Your task to perform on an android device: turn on javascript in the chrome app Image 0: 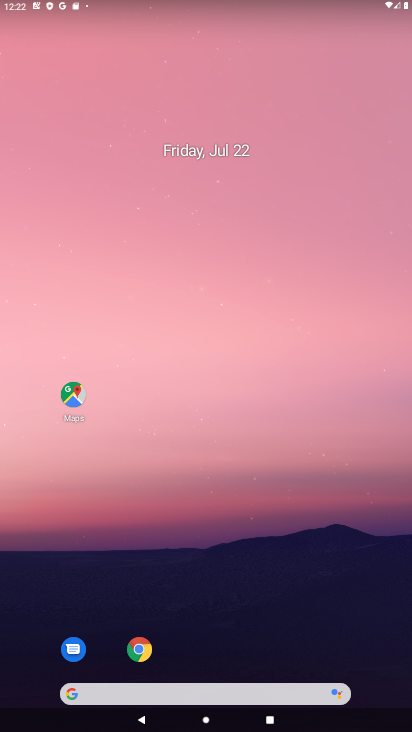
Step 0: click (140, 653)
Your task to perform on an android device: turn on javascript in the chrome app Image 1: 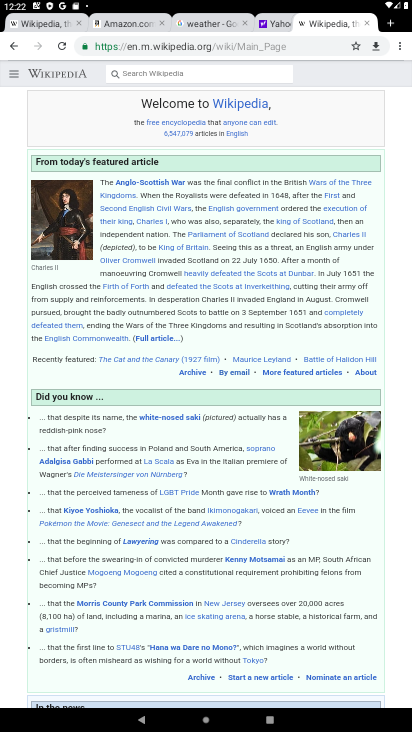
Step 1: click (400, 43)
Your task to perform on an android device: turn on javascript in the chrome app Image 2: 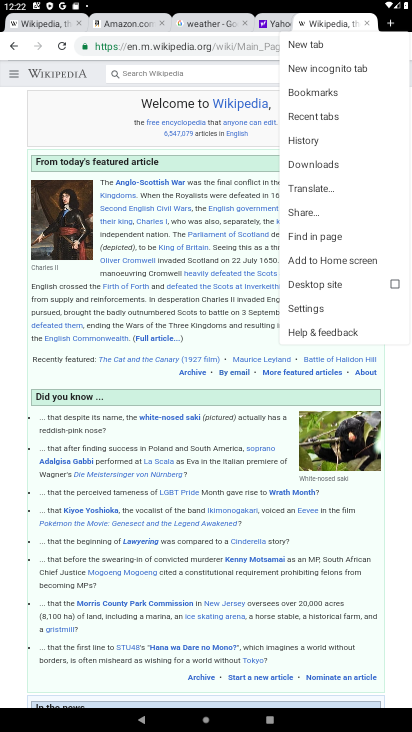
Step 2: click (311, 306)
Your task to perform on an android device: turn on javascript in the chrome app Image 3: 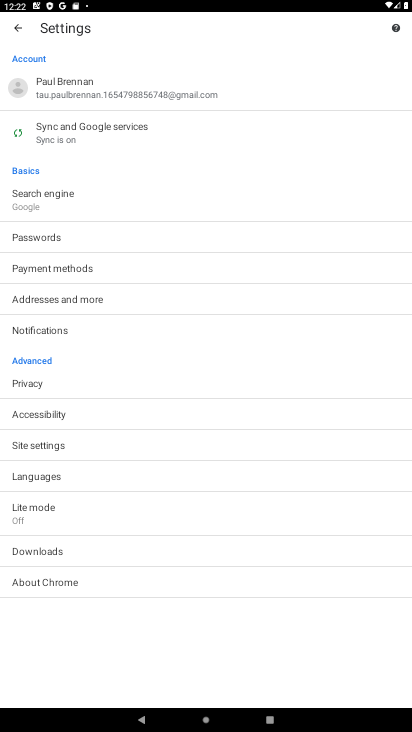
Step 3: click (39, 443)
Your task to perform on an android device: turn on javascript in the chrome app Image 4: 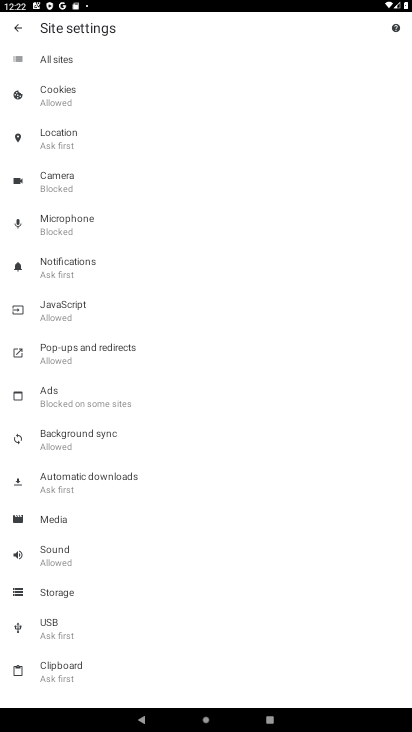
Step 4: click (61, 301)
Your task to perform on an android device: turn on javascript in the chrome app Image 5: 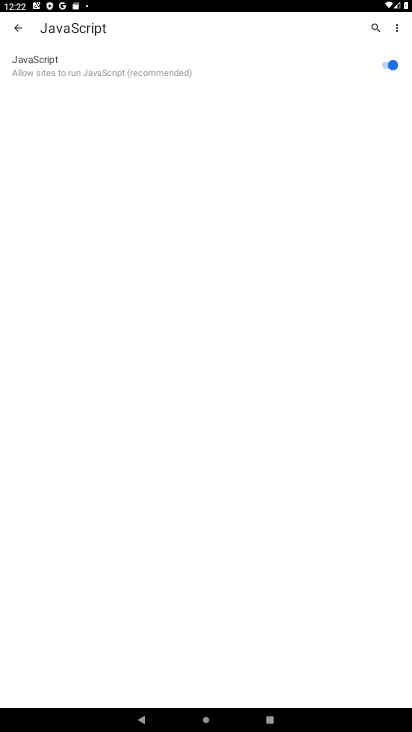
Step 5: task complete